Your task to perform on an android device: Open accessibility settings Image 0: 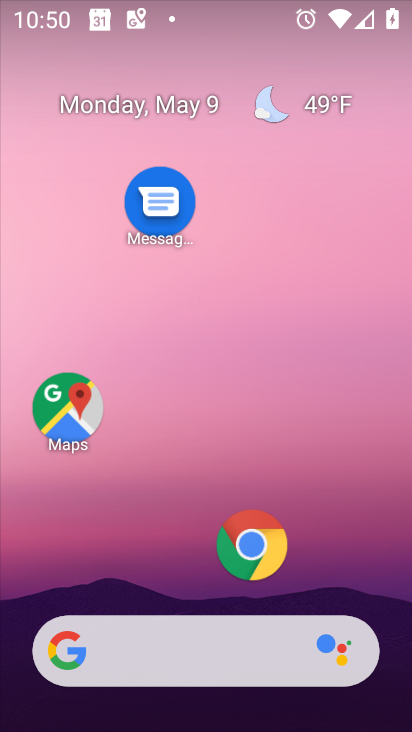
Step 0: drag from (144, 557) to (140, 12)
Your task to perform on an android device: Open accessibility settings Image 1: 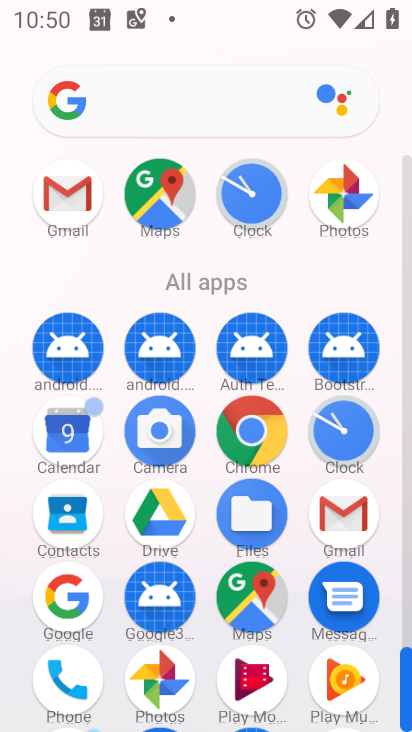
Step 1: drag from (204, 608) to (203, 257)
Your task to perform on an android device: Open accessibility settings Image 2: 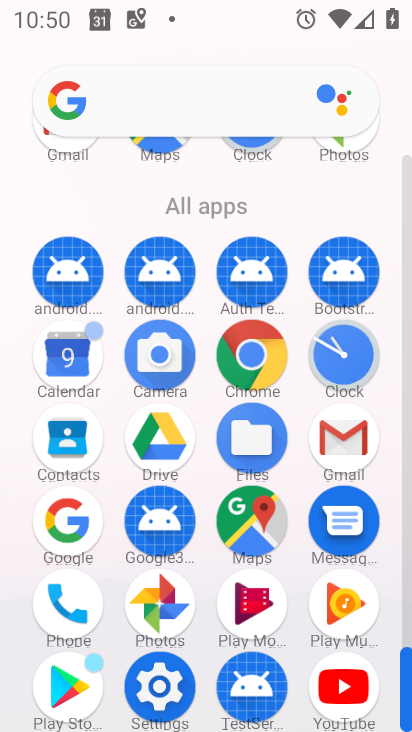
Step 2: click (143, 708)
Your task to perform on an android device: Open accessibility settings Image 3: 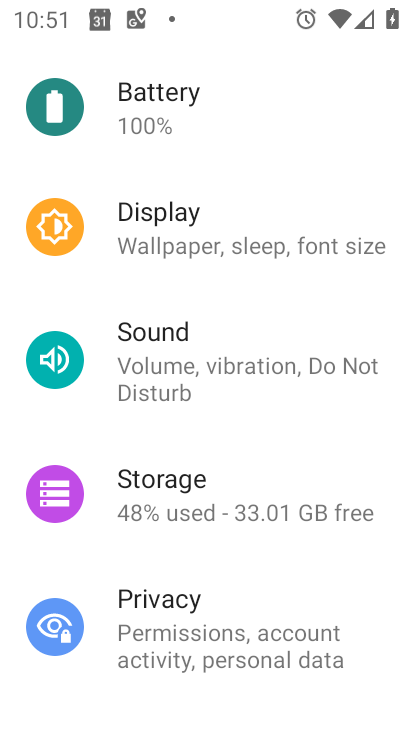
Step 3: drag from (185, 694) to (180, 450)
Your task to perform on an android device: Open accessibility settings Image 4: 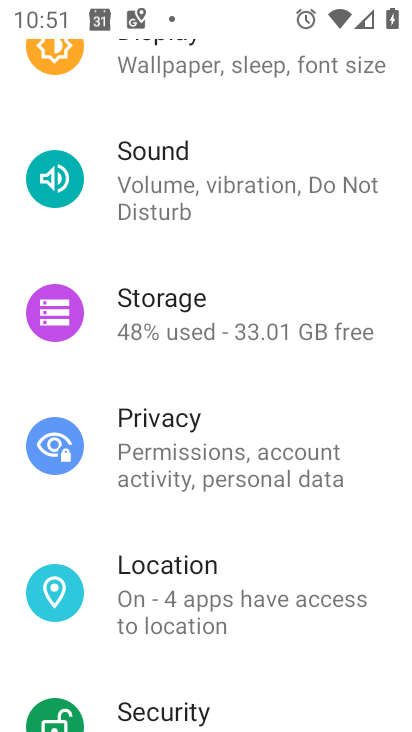
Step 4: drag from (146, 695) to (283, 273)
Your task to perform on an android device: Open accessibility settings Image 5: 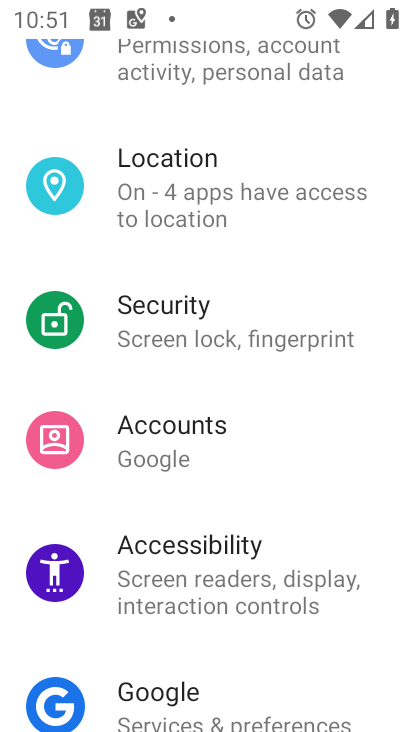
Step 5: click (228, 558)
Your task to perform on an android device: Open accessibility settings Image 6: 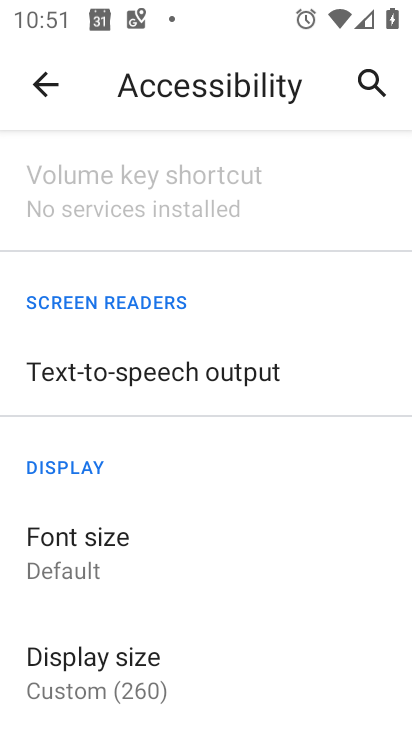
Step 6: task complete